Your task to perform on an android device: change the clock display to analog Image 0: 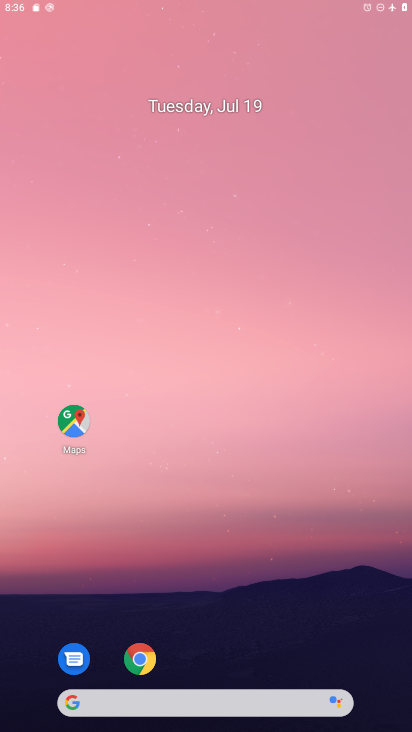
Step 0: drag from (216, 493) to (207, 201)
Your task to perform on an android device: change the clock display to analog Image 1: 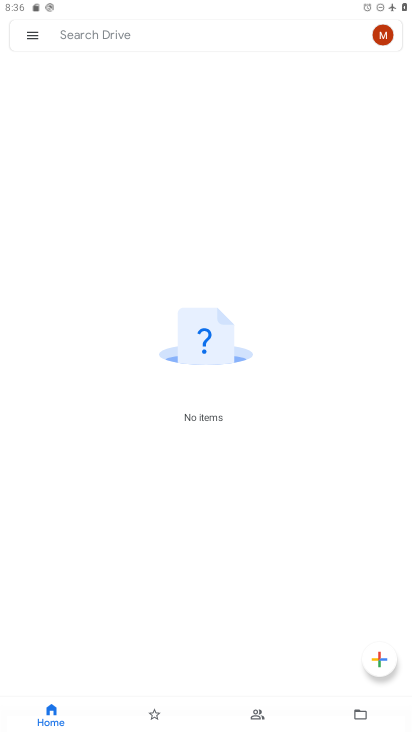
Step 1: press home button
Your task to perform on an android device: change the clock display to analog Image 2: 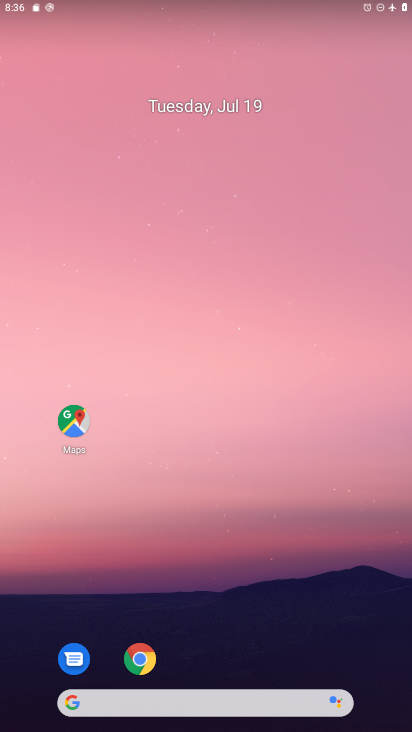
Step 2: drag from (244, 635) to (244, 192)
Your task to perform on an android device: change the clock display to analog Image 3: 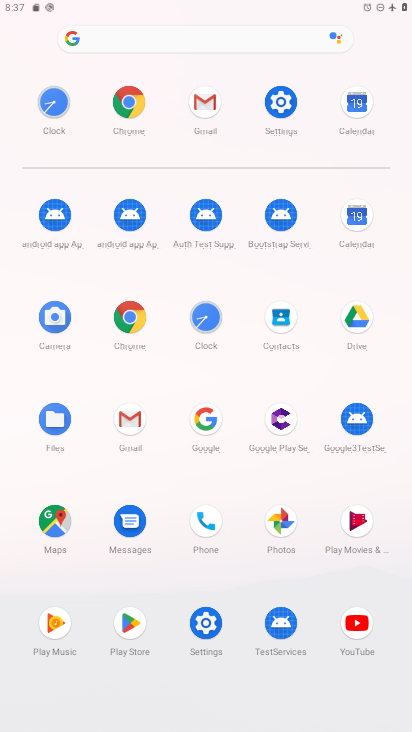
Step 3: click (353, 218)
Your task to perform on an android device: change the clock display to analog Image 4: 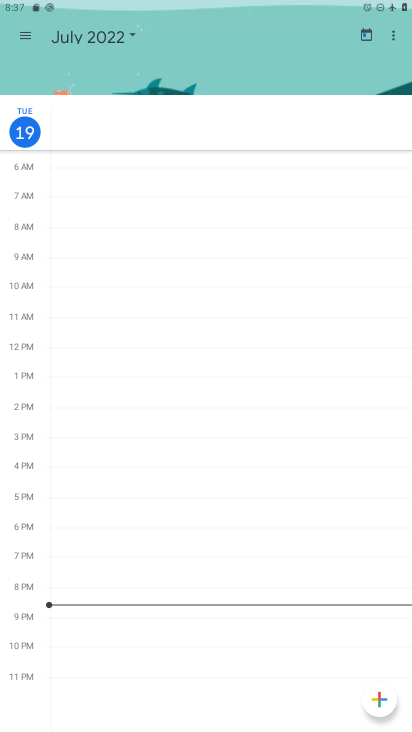
Step 4: click (394, 38)
Your task to perform on an android device: change the clock display to analog Image 5: 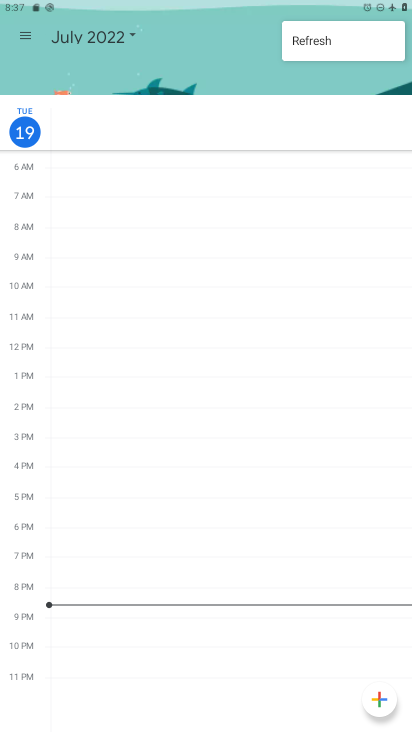
Step 5: click (383, 128)
Your task to perform on an android device: change the clock display to analog Image 6: 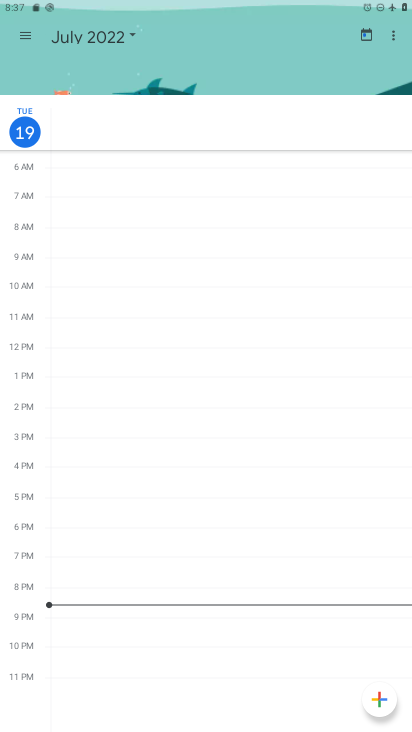
Step 6: click (402, 43)
Your task to perform on an android device: change the clock display to analog Image 7: 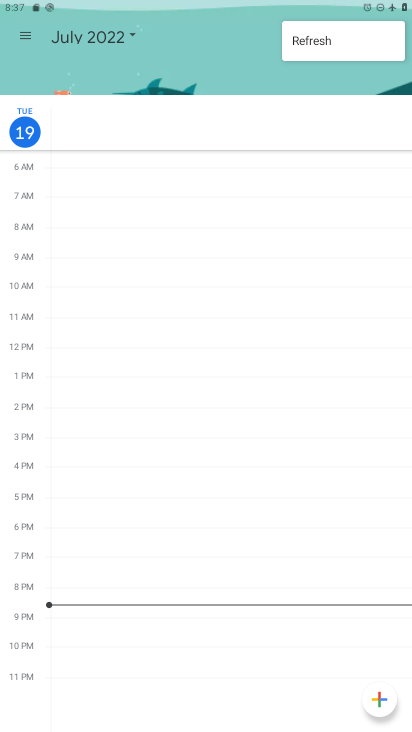
Step 7: click (201, 74)
Your task to perform on an android device: change the clock display to analog Image 8: 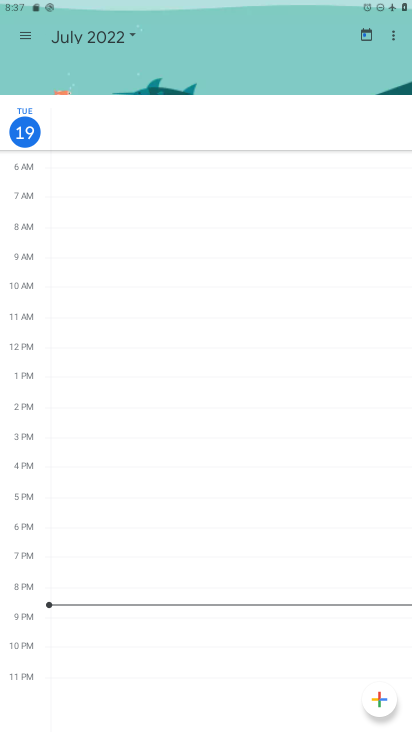
Step 8: press home button
Your task to perform on an android device: change the clock display to analog Image 9: 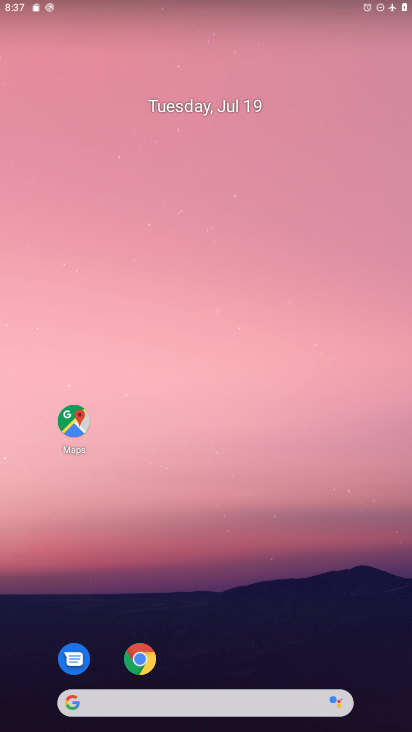
Step 9: drag from (248, 658) to (253, 265)
Your task to perform on an android device: change the clock display to analog Image 10: 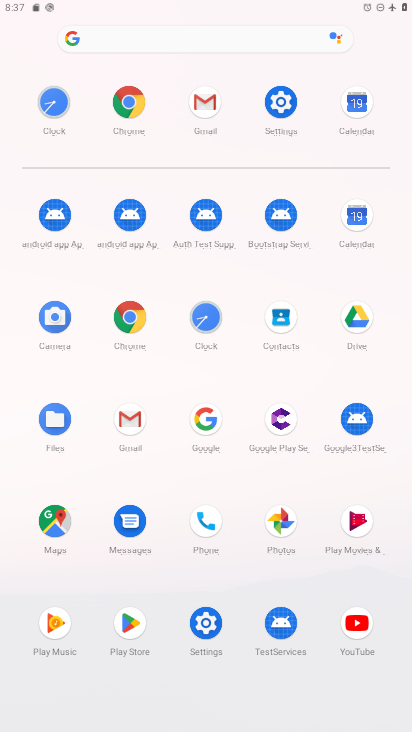
Step 10: click (204, 326)
Your task to perform on an android device: change the clock display to analog Image 11: 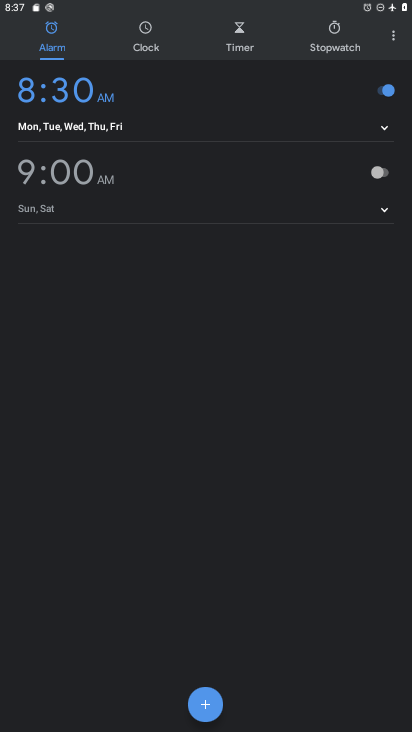
Step 11: click (397, 43)
Your task to perform on an android device: change the clock display to analog Image 12: 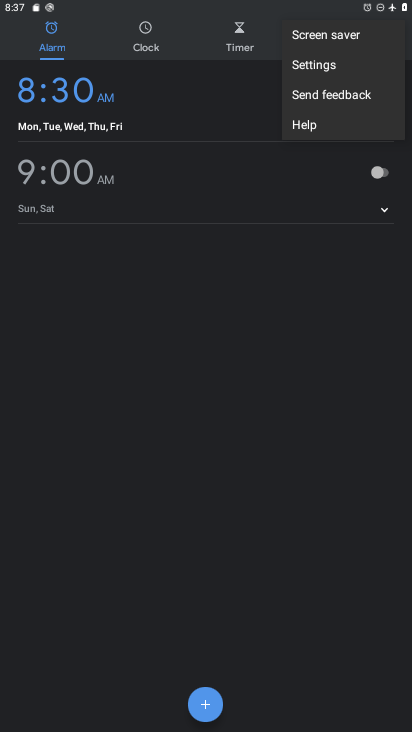
Step 12: click (303, 66)
Your task to perform on an android device: change the clock display to analog Image 13: 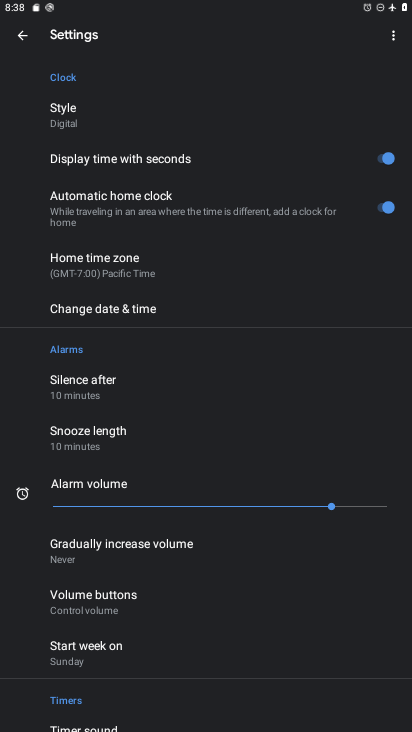
Step 13: click (78, 115)
Your task to perform on an android device: change the clock display to analog Image 14: 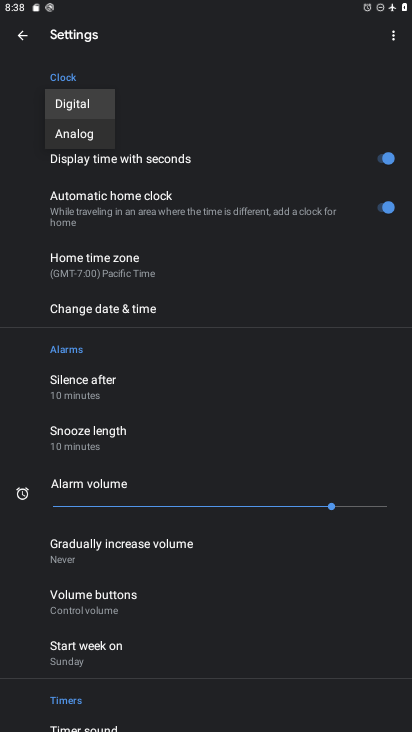
Step 14: click (95, 138)
Your task to perform on an android device: change the clock display to analog Image 15: 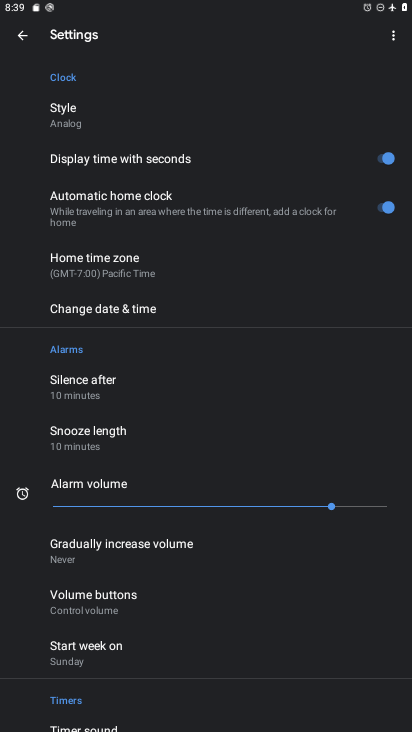
Step 15: task complete